Your task to perform on an android device: set an alarm Image 0: 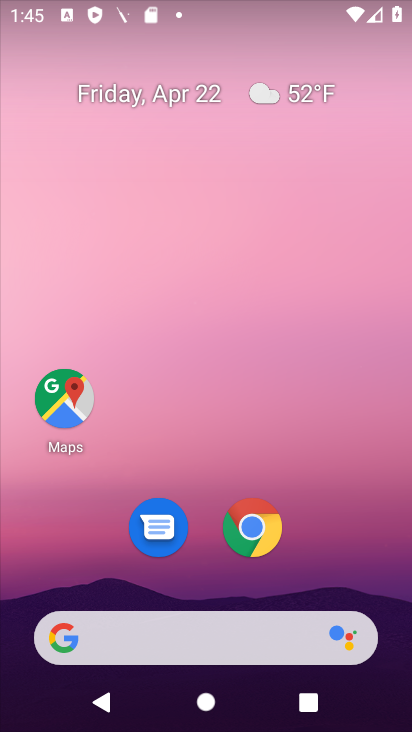
Step 0: drag from (376, 491) to (340, 165)
Your task to perform on an android device: set an alarm Image 1: 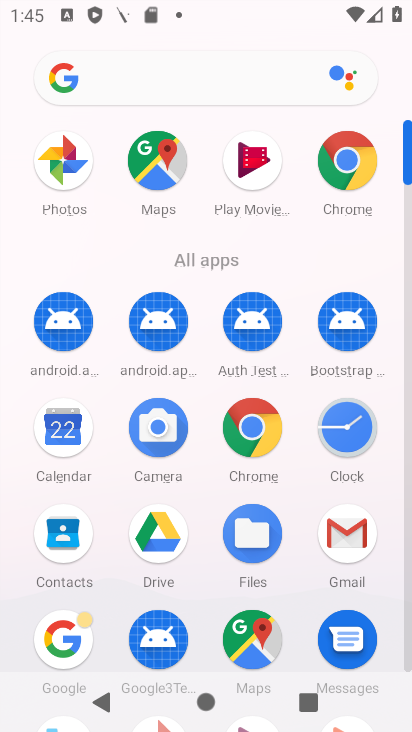
Step 1: click (342, 429)
Your task to perform on an android device: set an alarm Image 2: 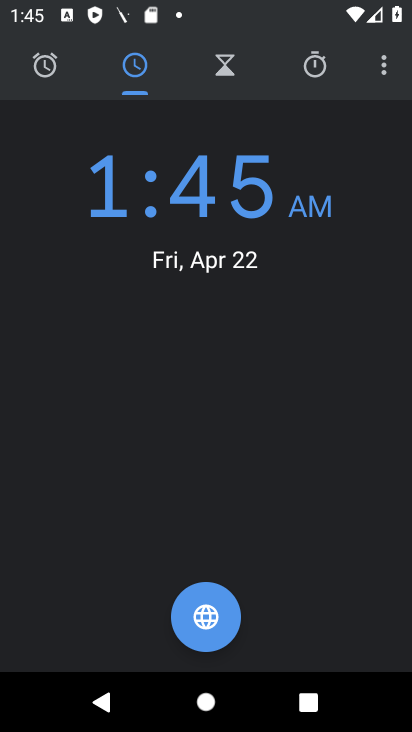
Step 2: click (51, 73)
Your task to perform on an android device: set an alarm Image 3: 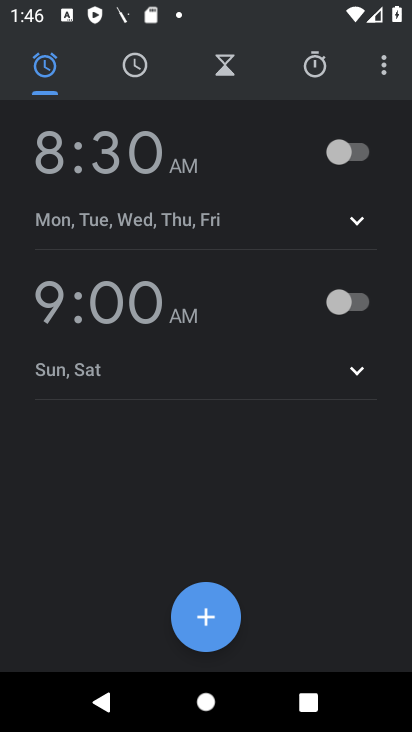
Step 3: click (363, 143)
Your task to perform on an android device: set an alarm Image 4: 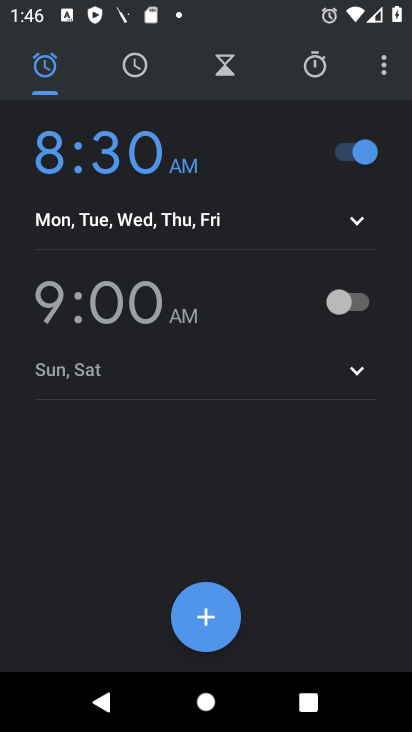
Step 4: task complete